Your task to perform on an android device: Go to Maps Image 0: 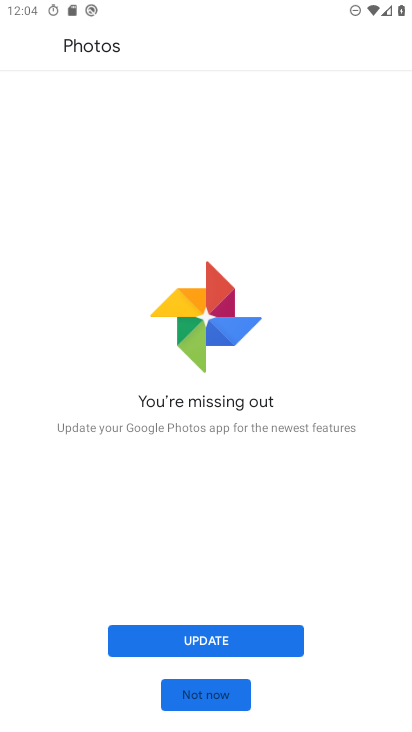
Step 0: press home button
Your task to perform on an android device: Go to Maps Image 1: 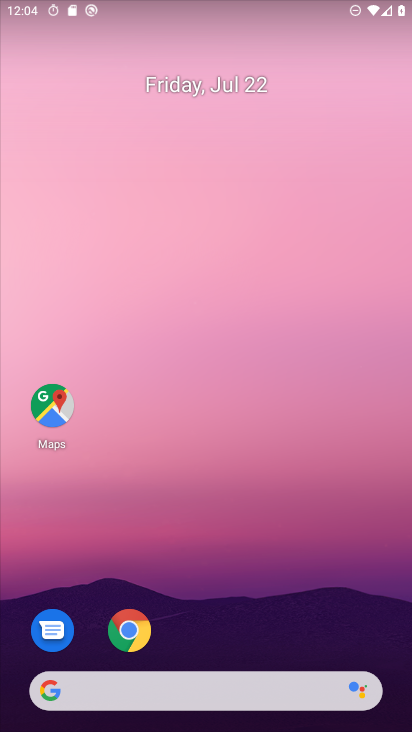
Step 1: click (49, 400)
Your task to perform on an android device: Go to Maps Image 2: 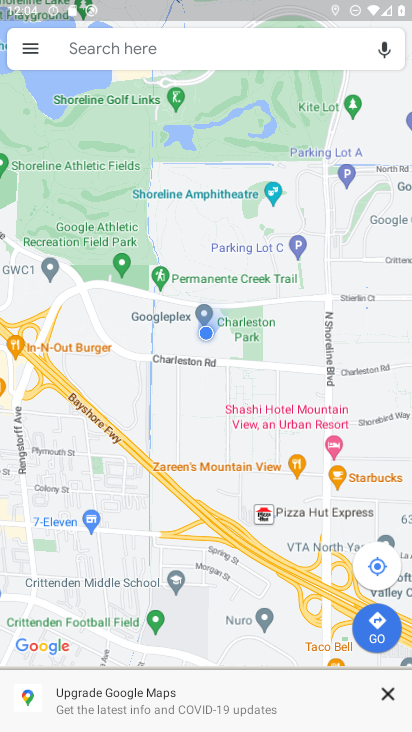
Step 2: task complete